Your task to perform on an android device: What's the news this week? Image 0: 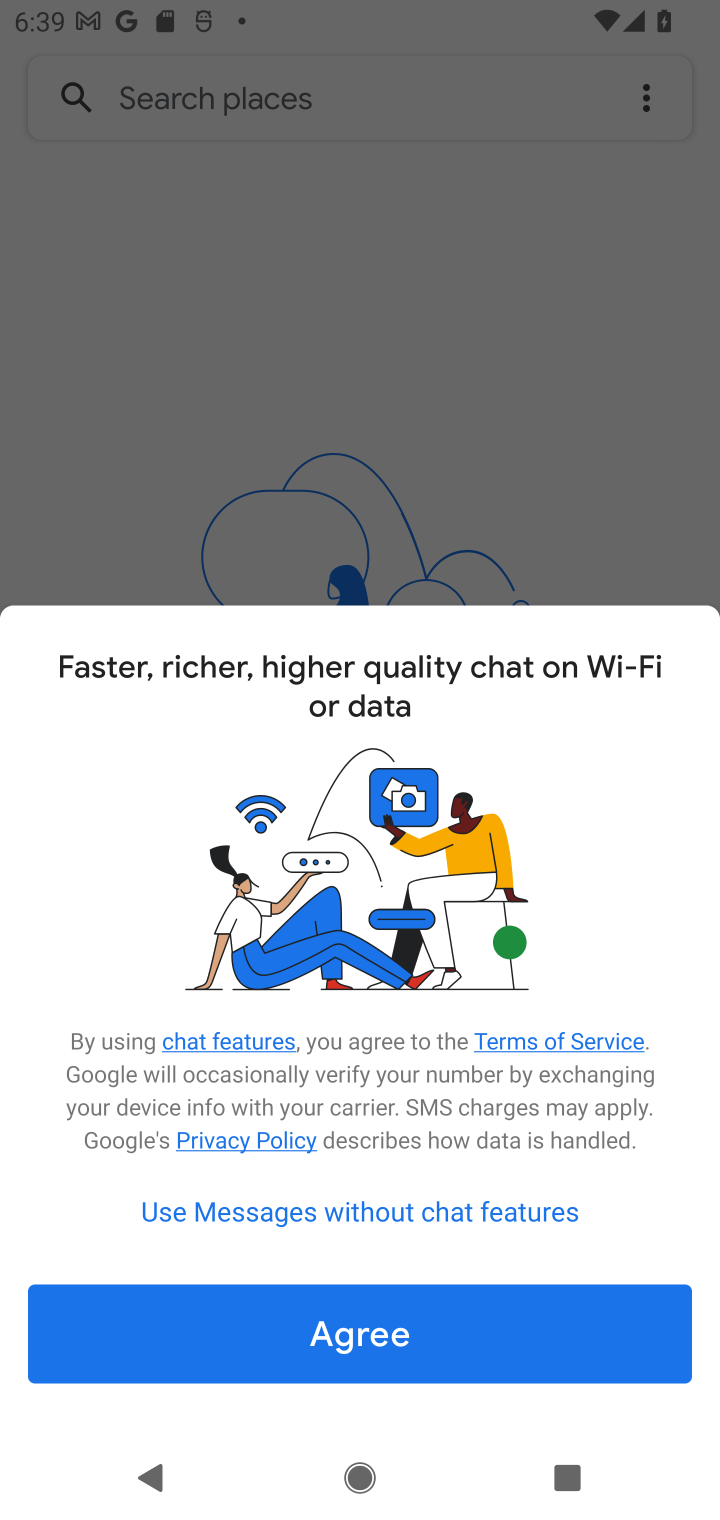
Step 0: press home button
Your task to perform on an android device: What's the news this week? Image 1: 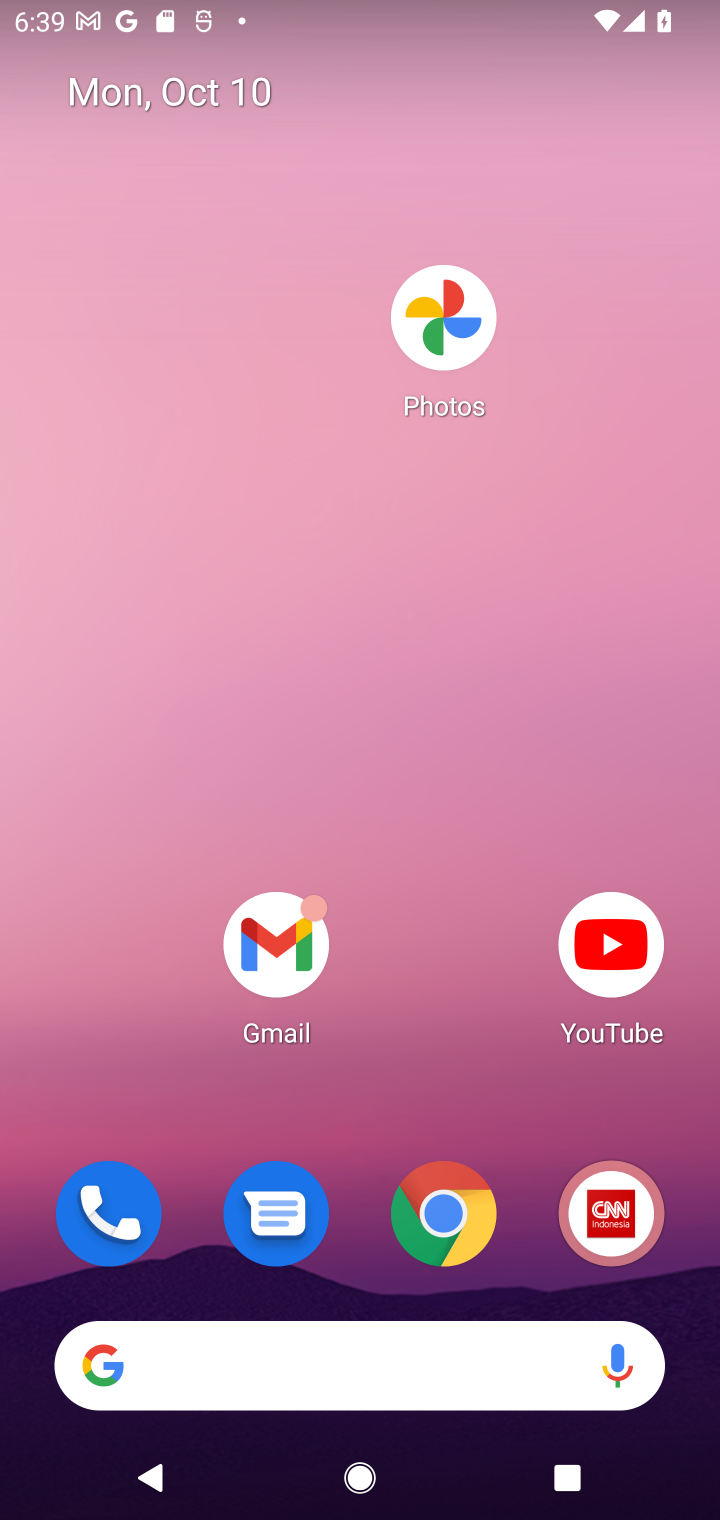
Step 1: click (315, 1367)
Your task to perform on an android device: What's the news this week? Image 2: 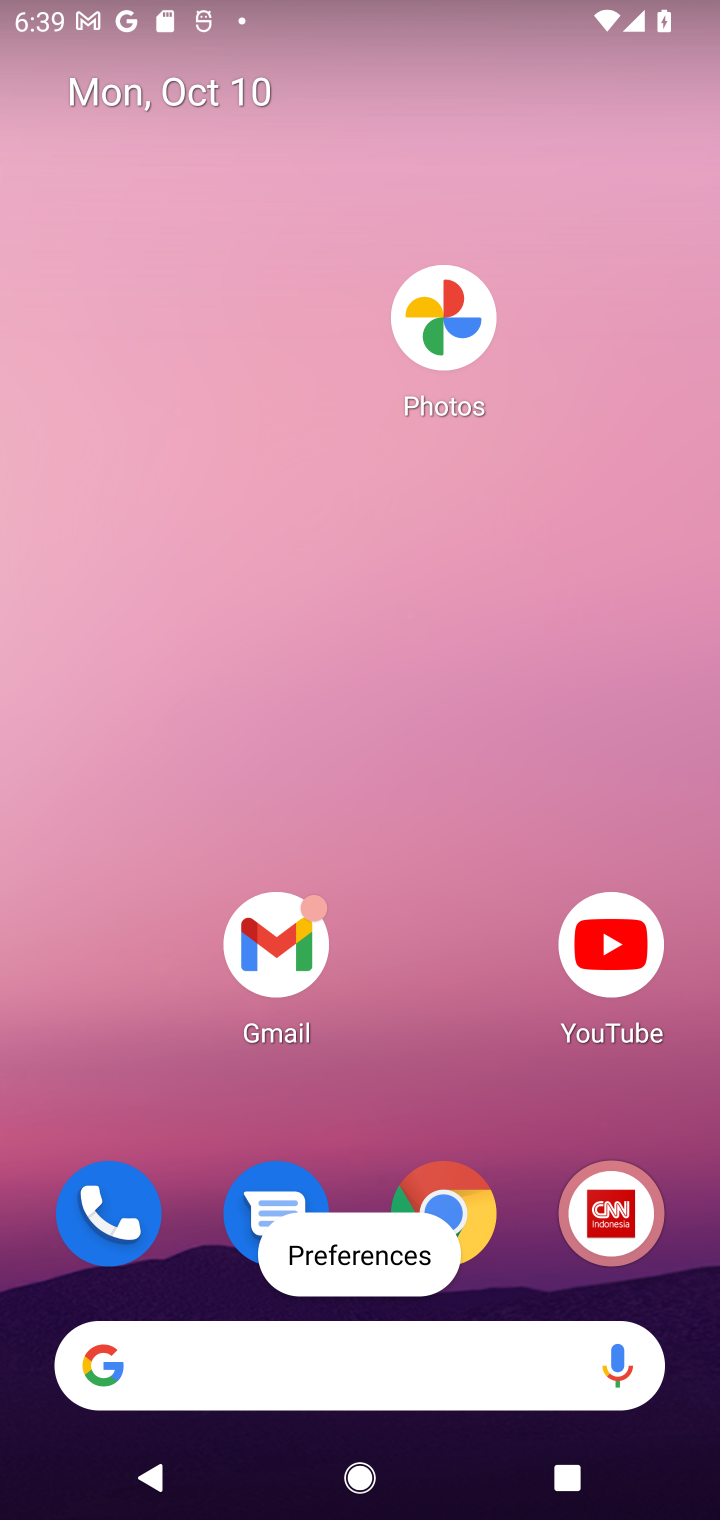
Step 2: click (315, 1367)
Your task to perform on an android device: What's the news this week? Image 3: 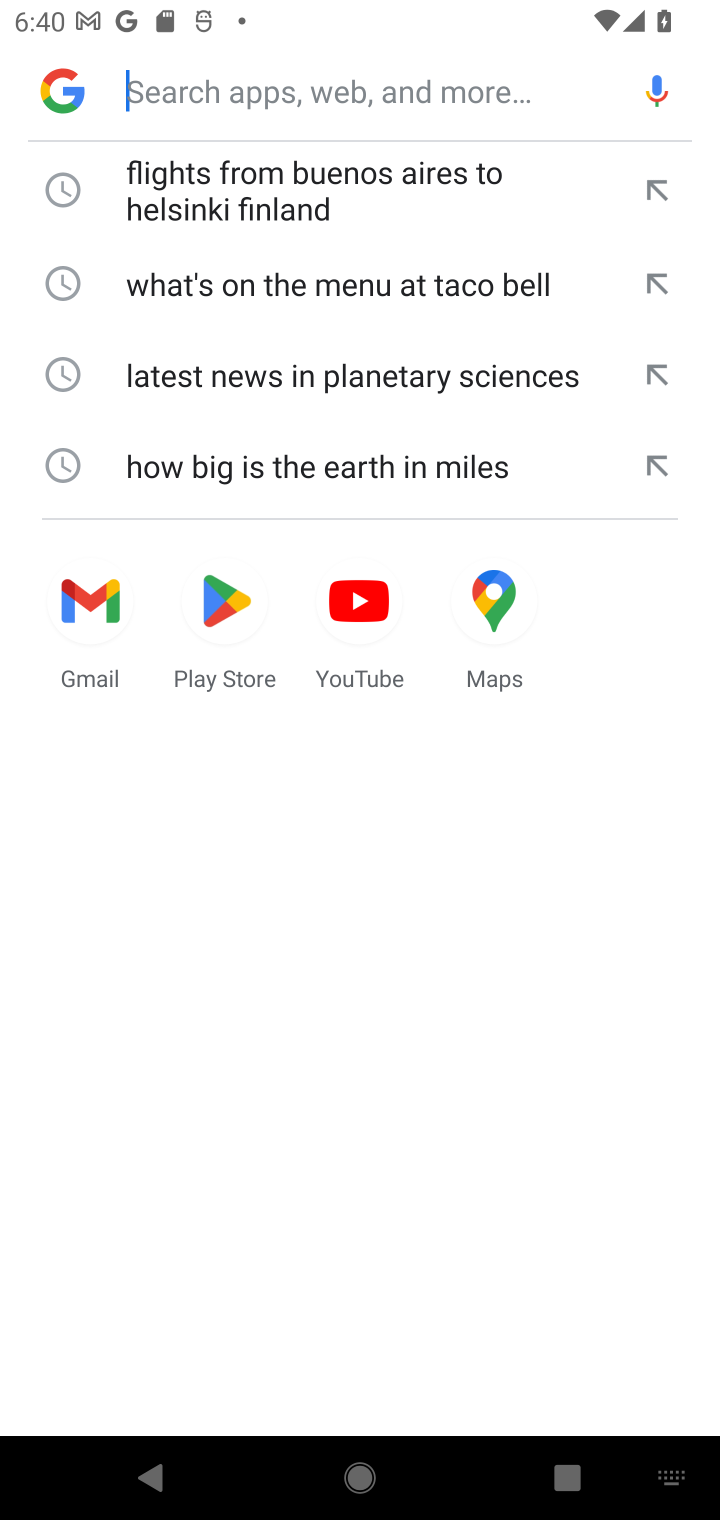
Step 3: type "news this week"
Your task to perform on an android device: What's the news this week? Image 4: 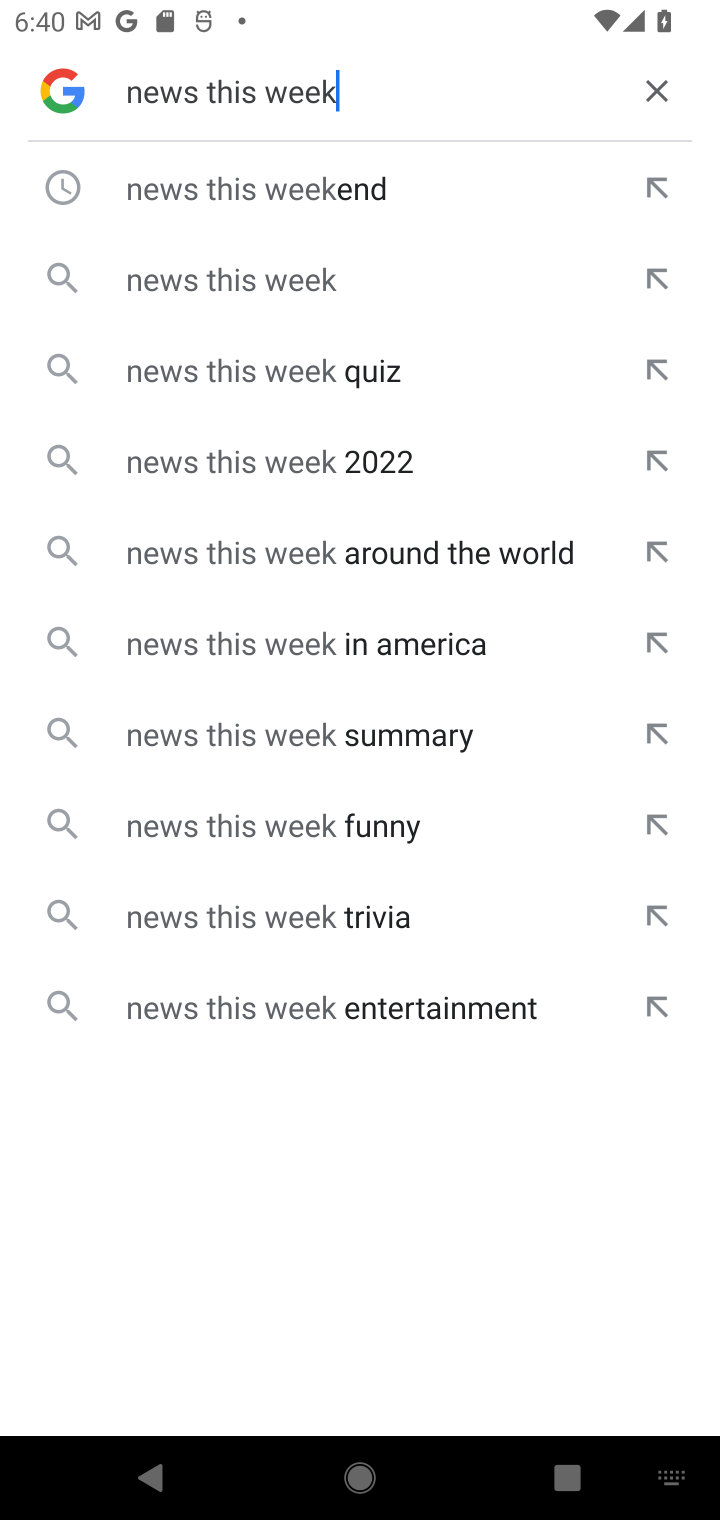
Step 4: click (301, 265)
Your task to perform on an android device: What's the news this week? Image 5: 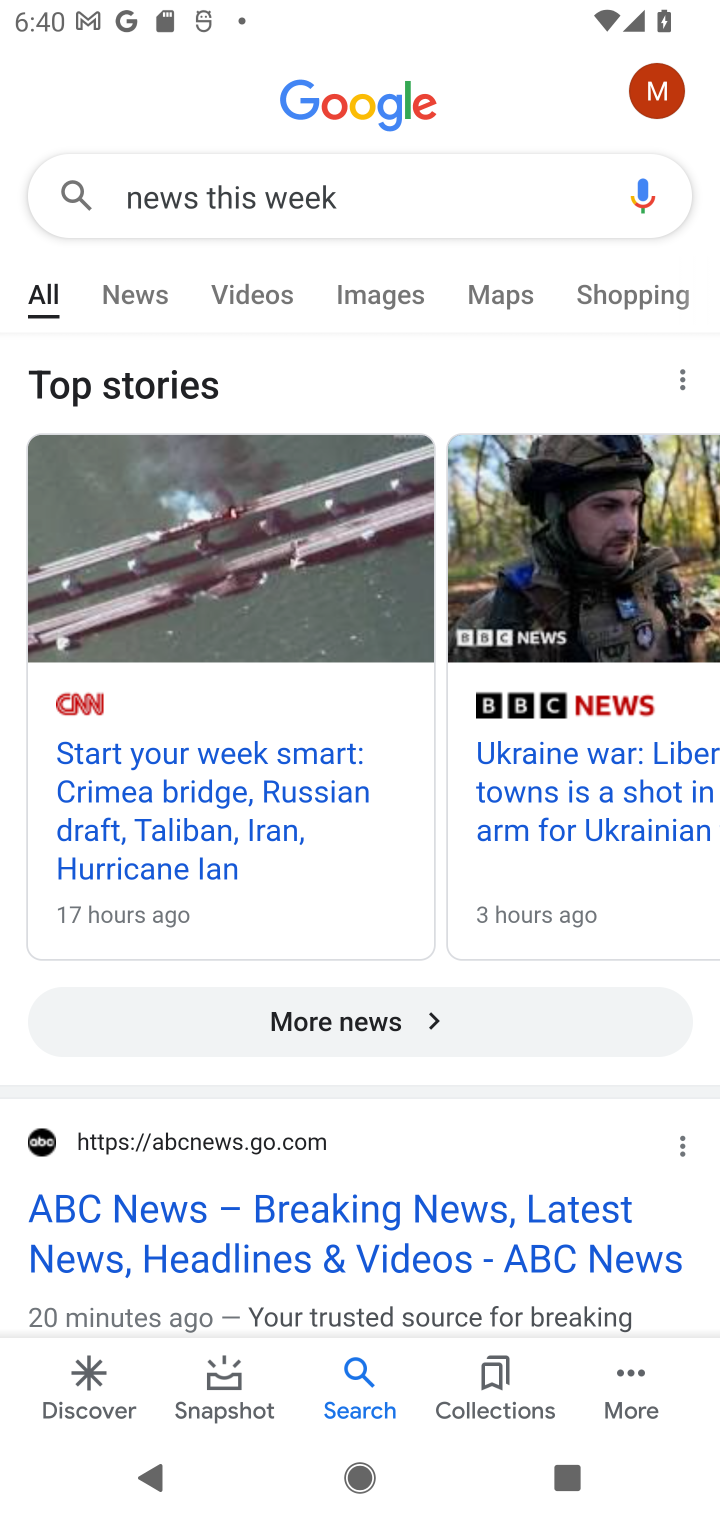
Step 5: click (118, 267)
Your task to perform on an android device: What's the news this week? Image 6: 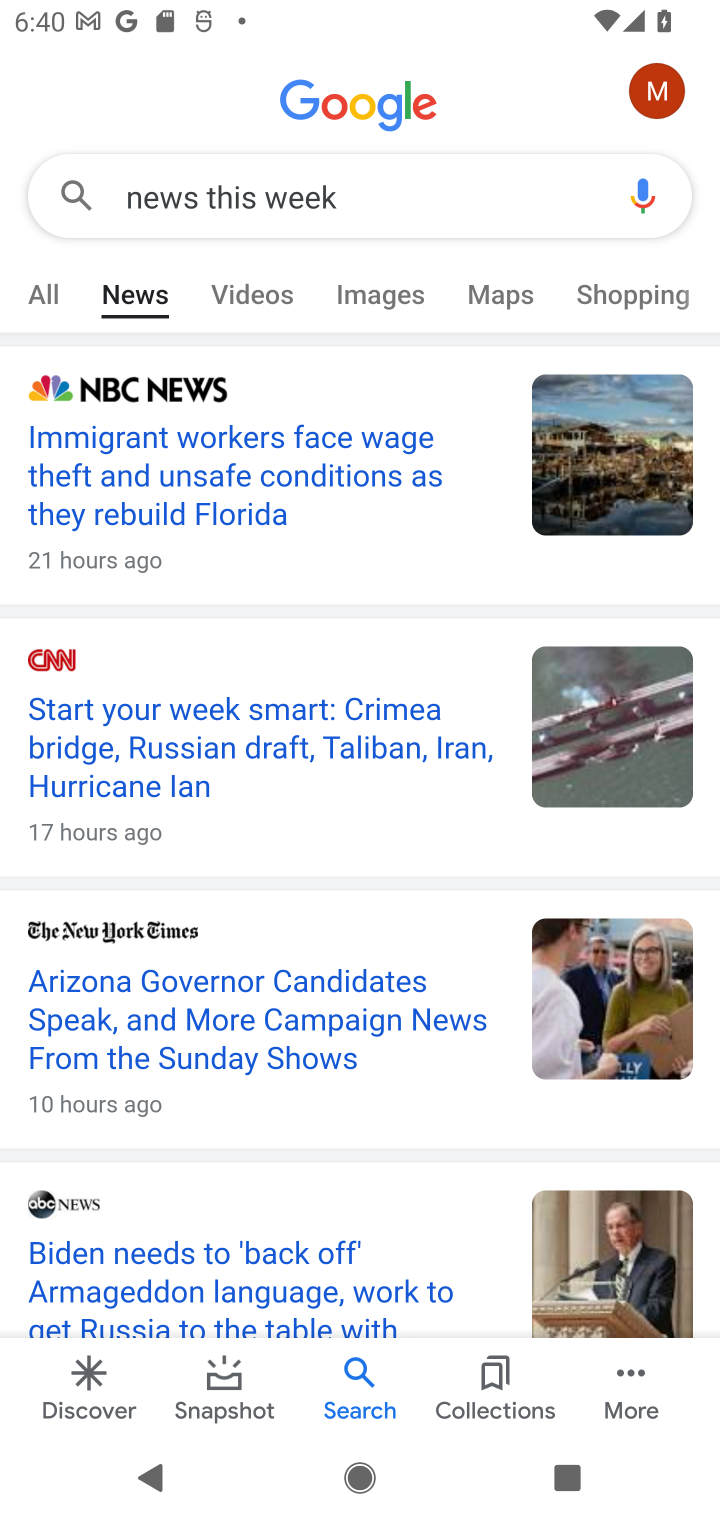
Step 6: task complete